Your task to perform on an android device: turn off notifications settings in the gmail app Image 0: 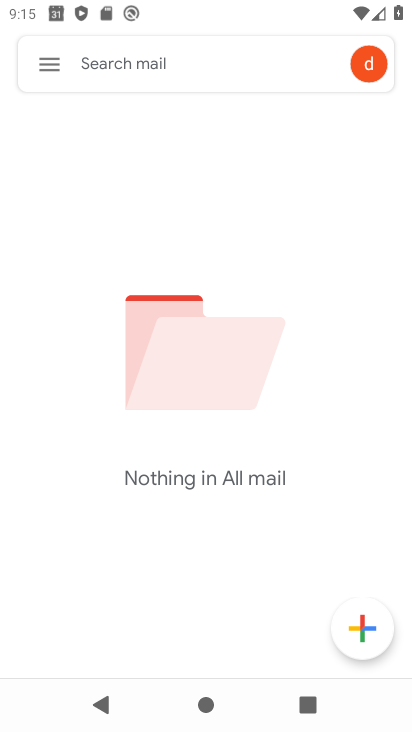
Step 0: press home button
Your task to perform on an android device: turn off notifications settings in the gmail app Image 1: 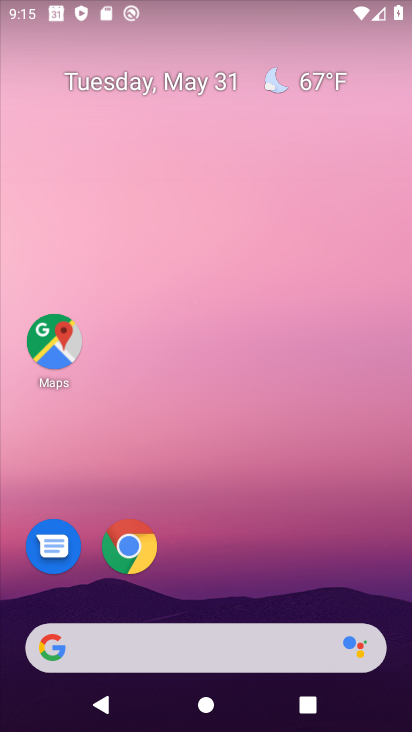
Step 1: drag from (223, 585) to (258, 109)
Your task to perform on an android device: turn off notifications settings in the gmail app Image 2: 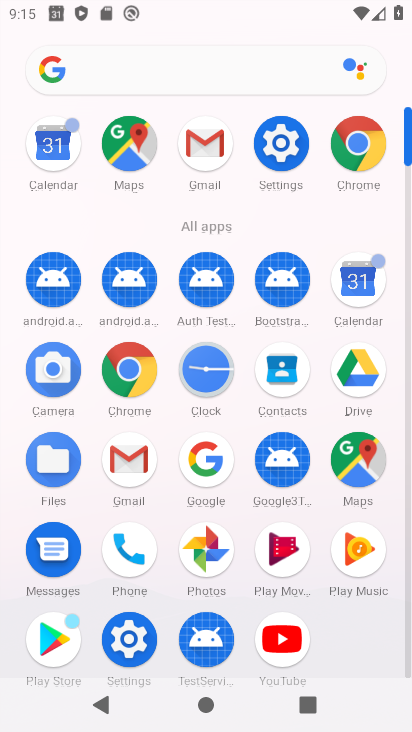
Step 2: click (120, 471)
Your task to perform on an android device: turn off notifications settings in the gmail app Image 3: 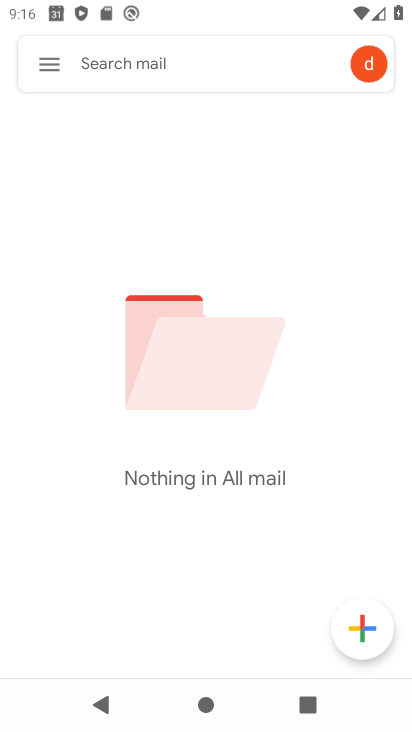
Step 3: click (46, 65)
Your task to perform on an android device: turn off notifications settings in the gmail app Image 4: 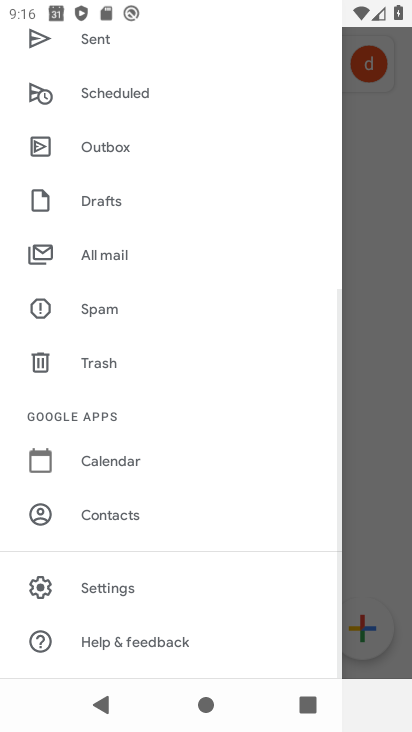
Step 4: click (105, 587)
Your task to perform on an android device: turn off notifications settings in the gmail app Image 5: 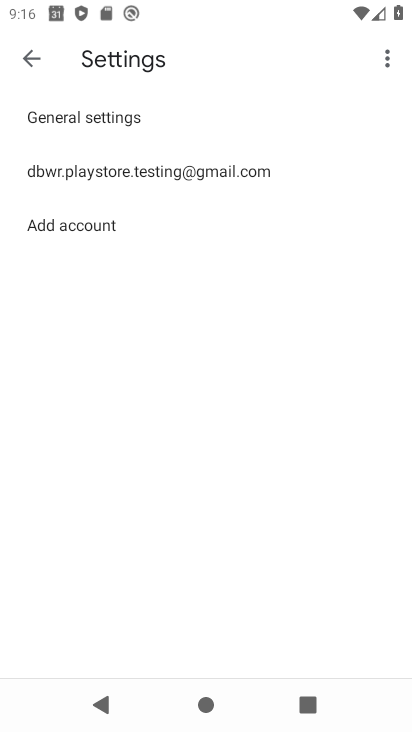
Step 5: click (109, 123)
Your task to perform on an android device: turn off notifications settings in the gmail app Image 6: 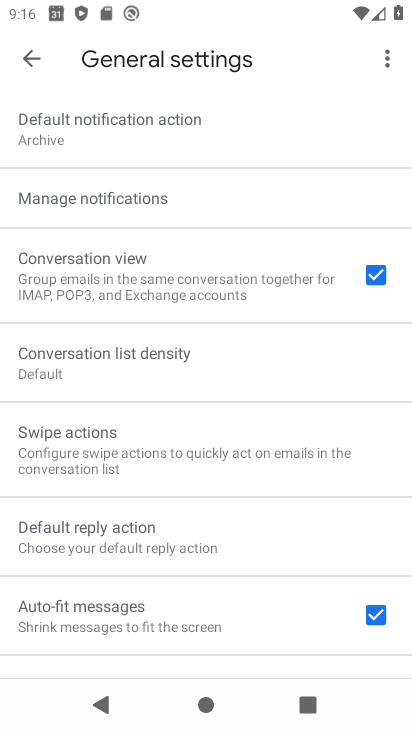
Step 6: click (138, 208)
Your task to perform on an android device: turn off notifications settings in the gmail app Image 7: 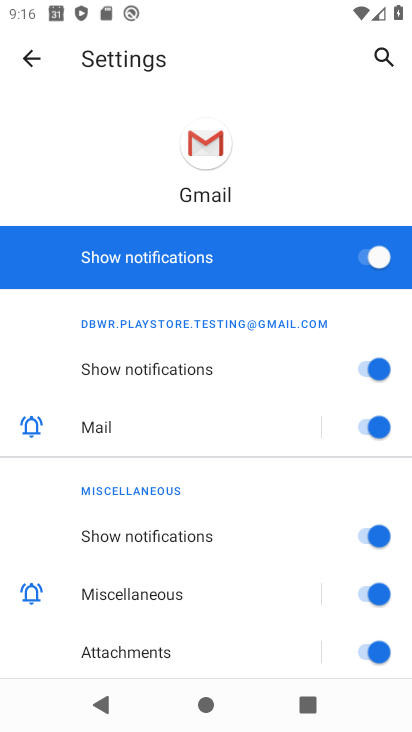
Step 7: click (352, 263)
Your task to perform on an android device: turn off notifications settings in the gmail app Image 8: 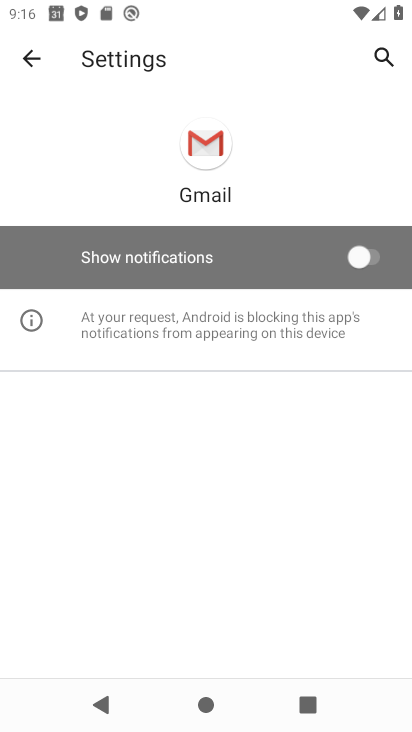
Step 8: task complete